Your task to perform on an android device: toggle notifications settings in the gmail app Image 0: 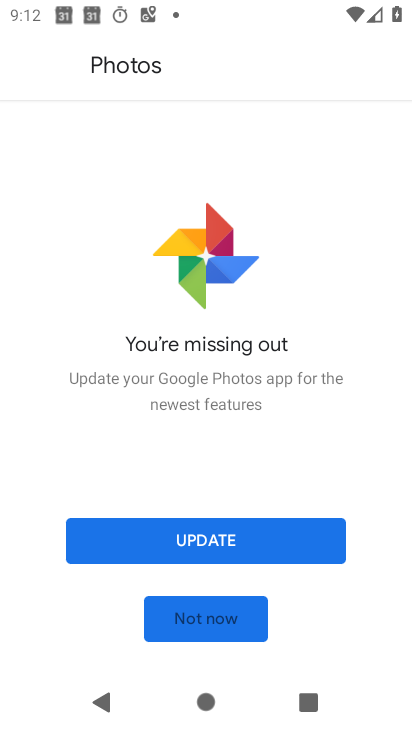
Step 0: press home button
Your task to perform on an android device: toggle notifications settings in the gmail app Image 1: 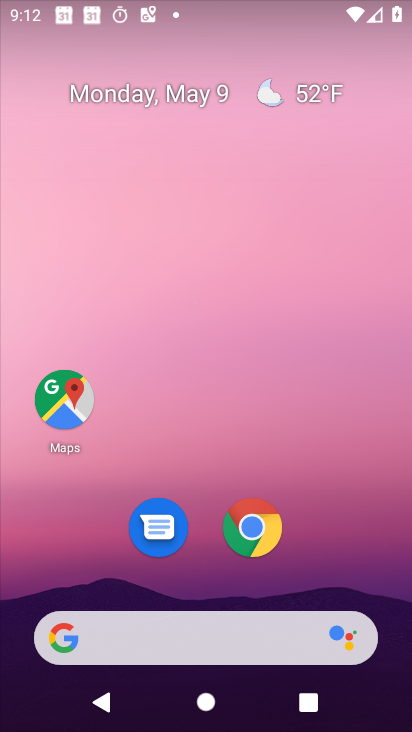
Step 1: drag from (354, 542) to (324, 216)
Your task to perform on an android device: toggle notifications settings in the gmail app Image 2: 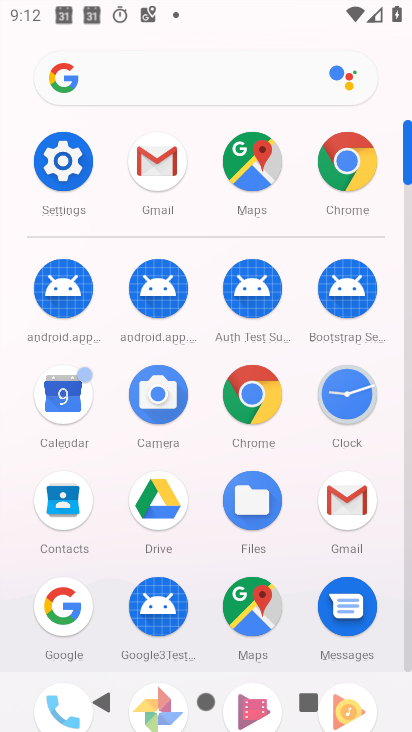
Step 2: click (340, 513)
Your task to perform on an android device: toggle notifications settings in the gmail app Image 3: 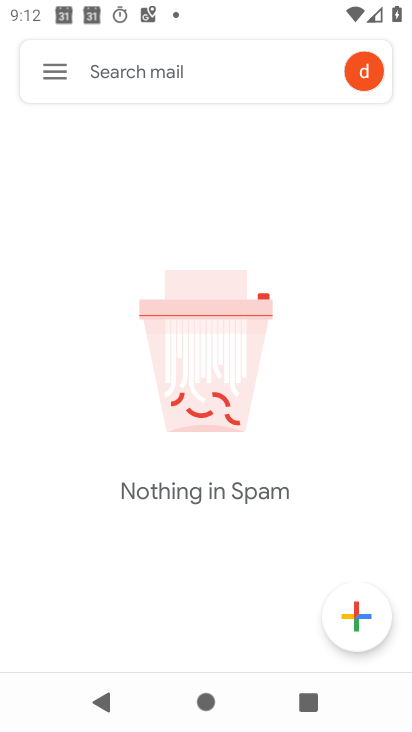
Step 3: click (67, 74)
Your task to perform on an android device: toggle notifications settings in the gmail app Image 4: 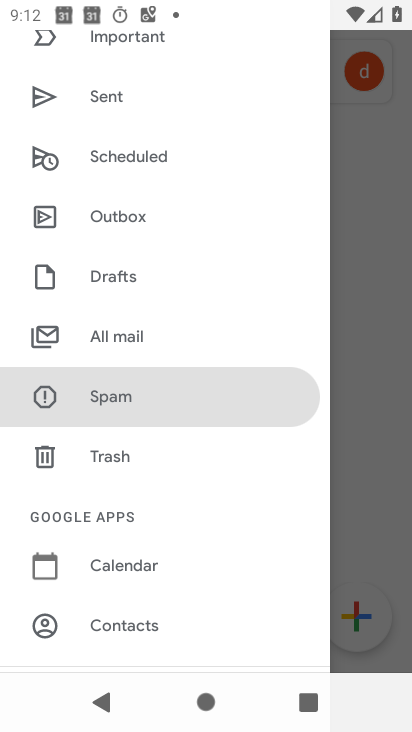
Step 4: drag from (187, 606) to (232, 254)
Your task to perform on an android device: toggle notifications settings in the gmail app Image 5: 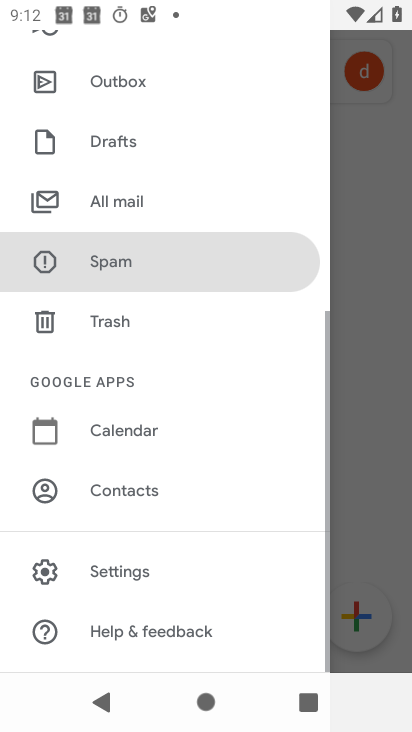
Step 5: click (114, 576)
Your task to perform on an android device: toggle notifications settings in the gmail app Image 6: 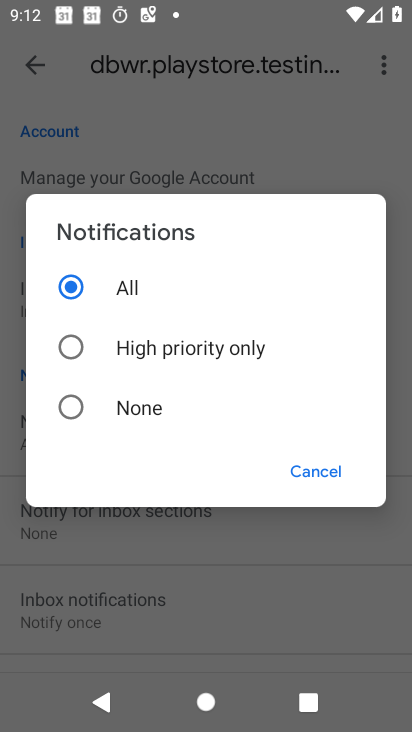
Step 6: click (76, 410)
Your task to perform on an android device: toggle notifications settings in the gmail app Image 7: 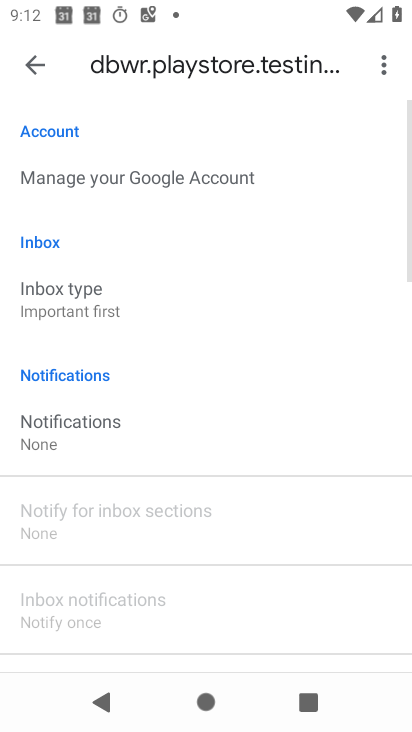
Step 7: task complete